Your task to perform on an android device: check android version Image 0: 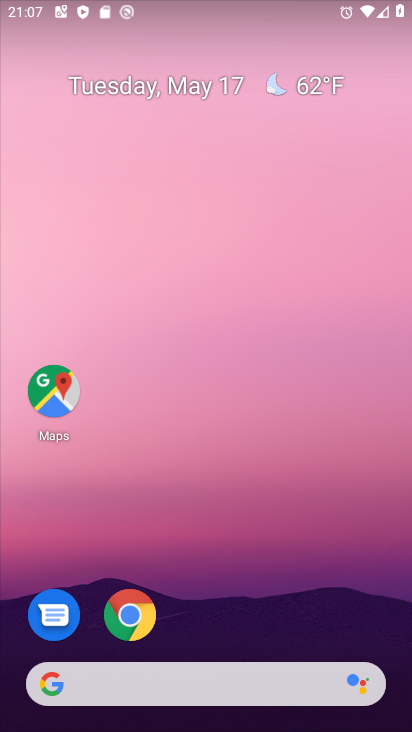
Step 0: drag from (245, 612) to (246, 96)
Your task to perform on an android device: check android version Image 1: 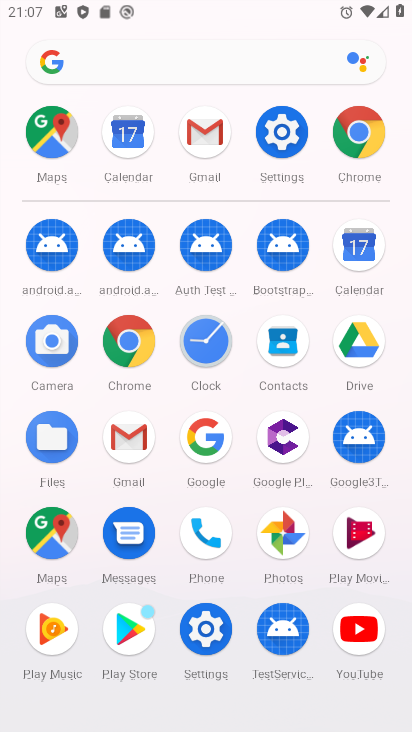
Step 1: click (281, 136)
Your task to perform on an android device: check android version Image 2: 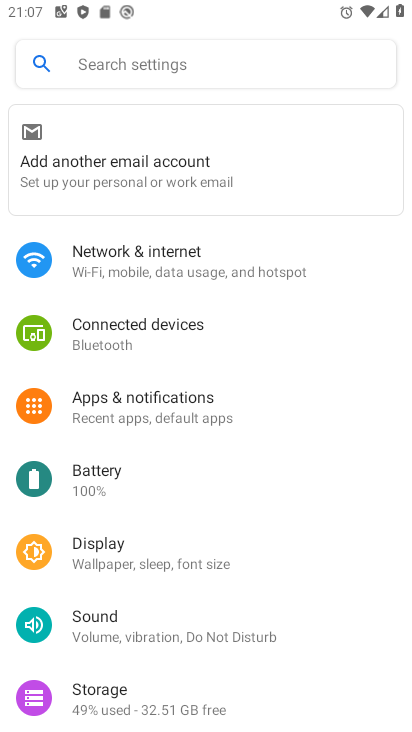
Step 2: drag from (158, 596) to (232, 152)
Your task to perform on an android device: check android version Image 3: 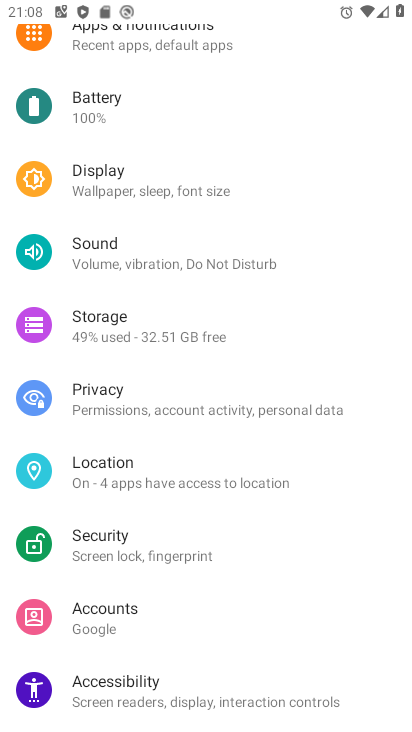
Step 3: drag from (198, 621) to (255, 122)
Your task to perform on an android device: check android version Image 4: 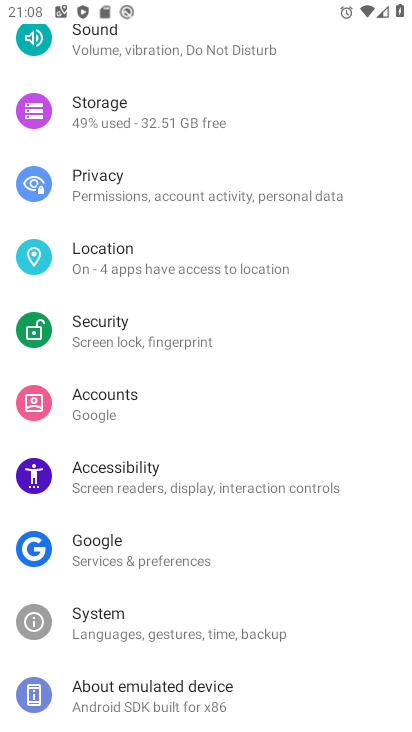
Step 4: click (122, 702)
Your task to perform on an android device: check android version Image 5: 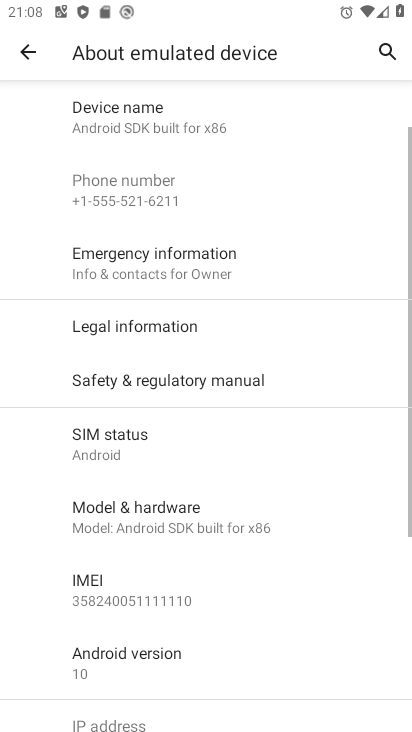
Step 5: click (129, 650)
Your task to perform on an android device: check android version Image 6: 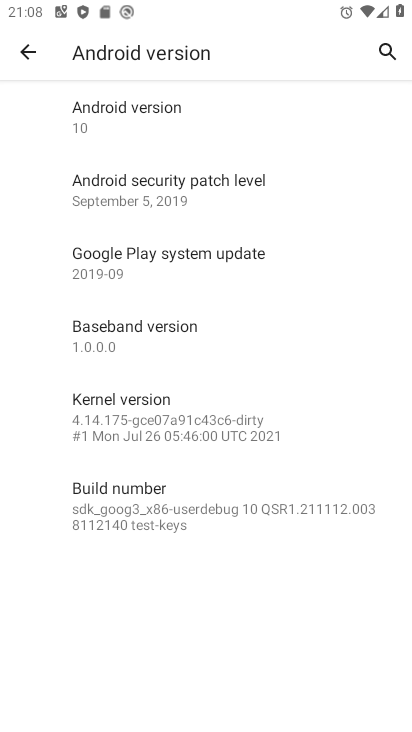
Step 6: task complete